Your task to perform on an android device: Add "acer predator" to the cart on costco, then select checkout. Image 0: 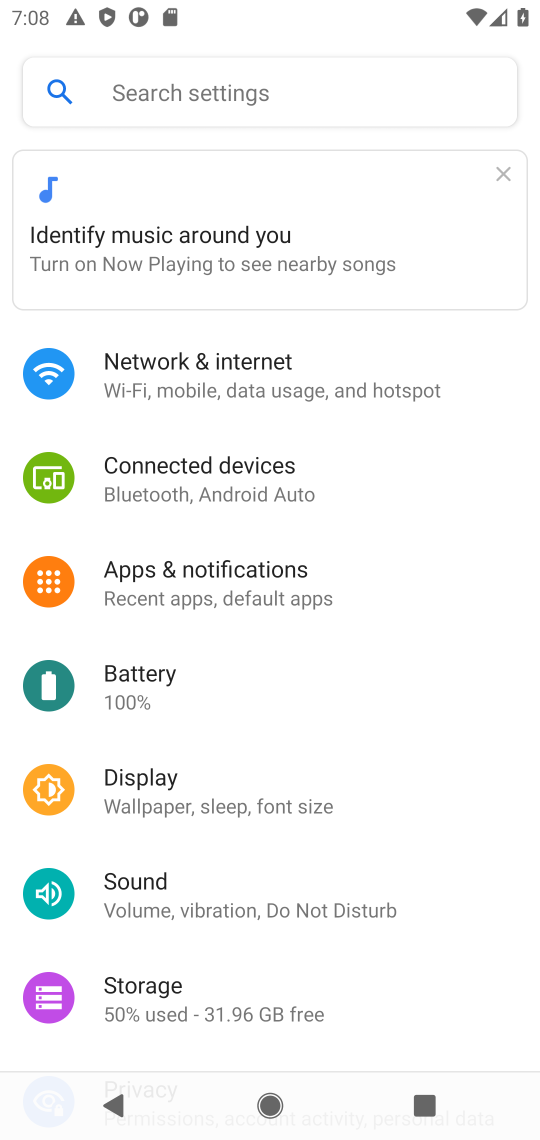
Step 0: press home button
Your task to perform on an android device: Add "acer predator" to the cart on costco, then select checkout. Image 1: 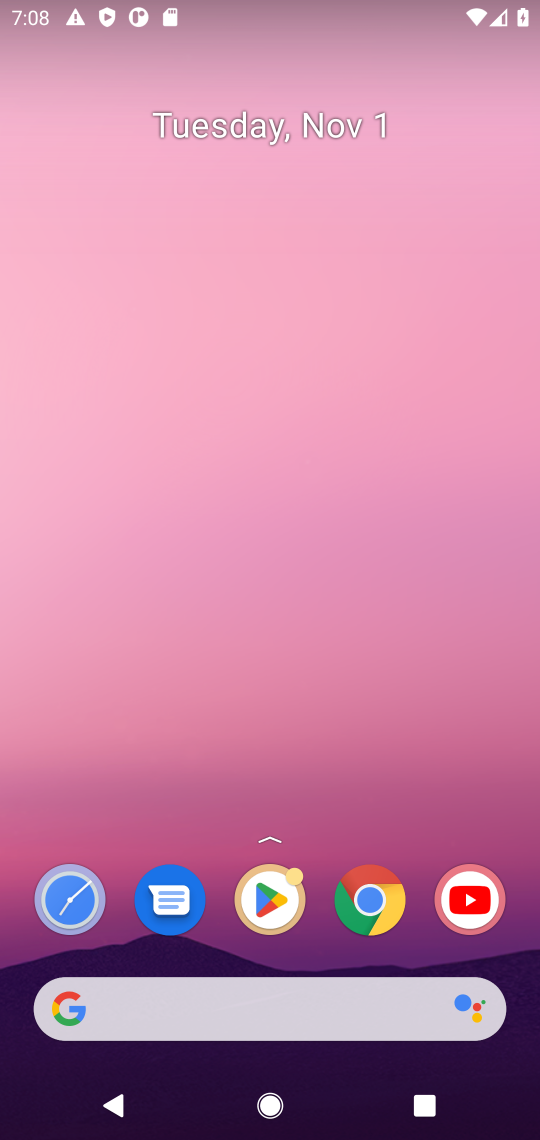
Step 1: drag from (192, 637) to (256, 8)
Your task to perform on an android device: Add "acer predator" to the cart on costco, then select checkout. Image 2: 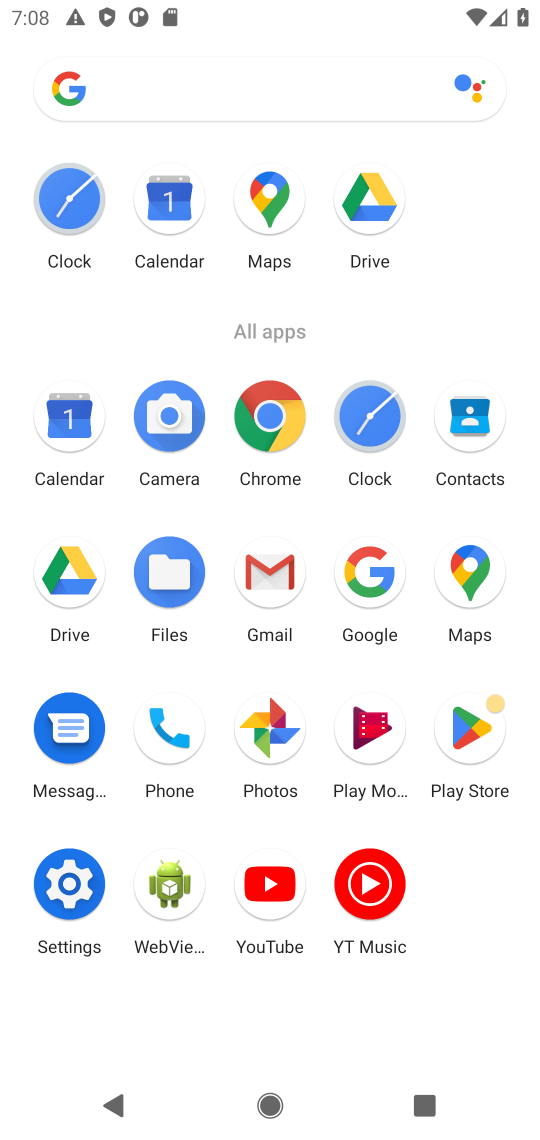
Step 2: click (267, 418)
Your task to perform on an android device: Add "acer predator" to the cart on costco, then select checkout. Image 3: 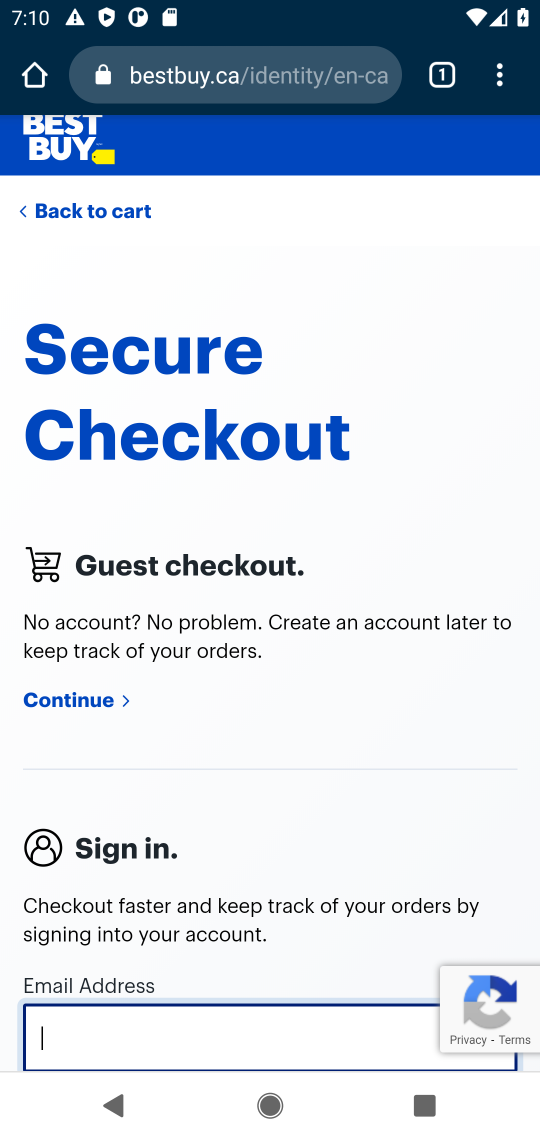
Step 3: click (332, 62)
Your task to perform on an android device: Add "acer predator" to the cart on costco, then select checkout. Image 4: 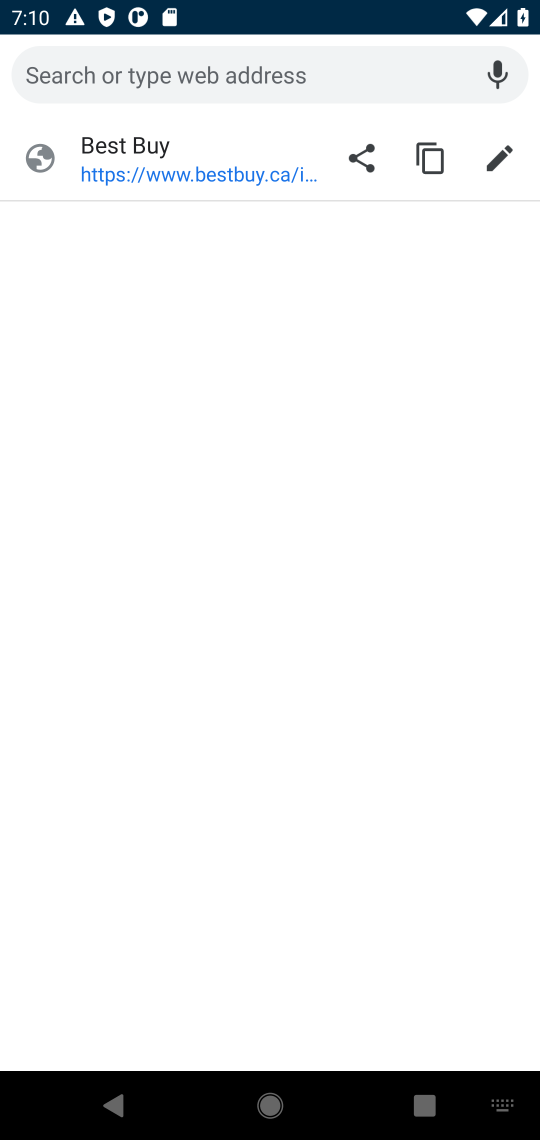
Step 4: type "costco.com"
Your task to perform on an android device: Add "acer predator" to the cart on costco, then select checkout. Image 5: 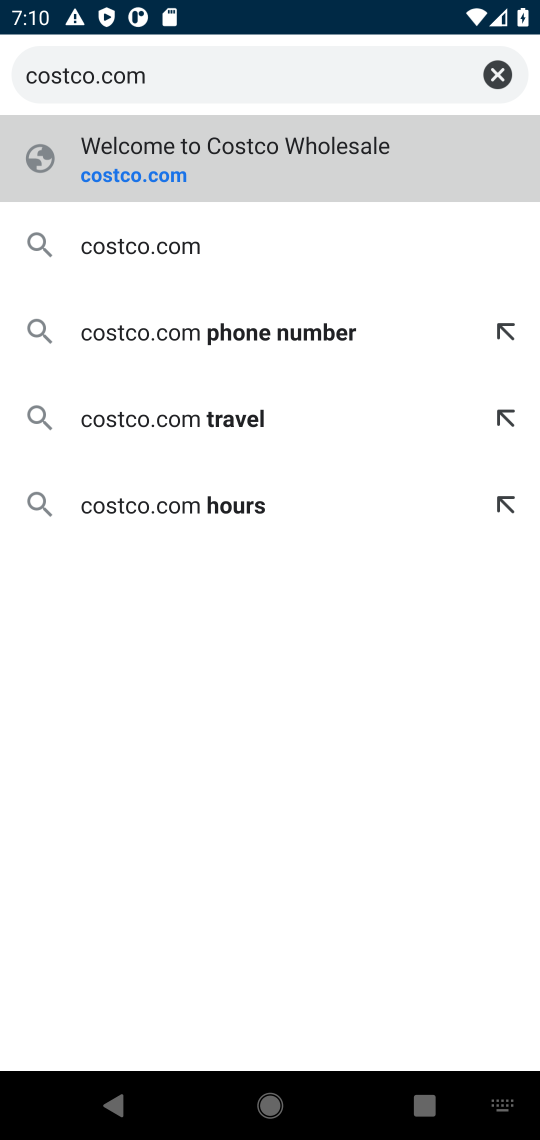
Step 5: press enter
Your task to perform on an android device: Add "acer predator" to the cart on costco, then select checkout. Image 6: 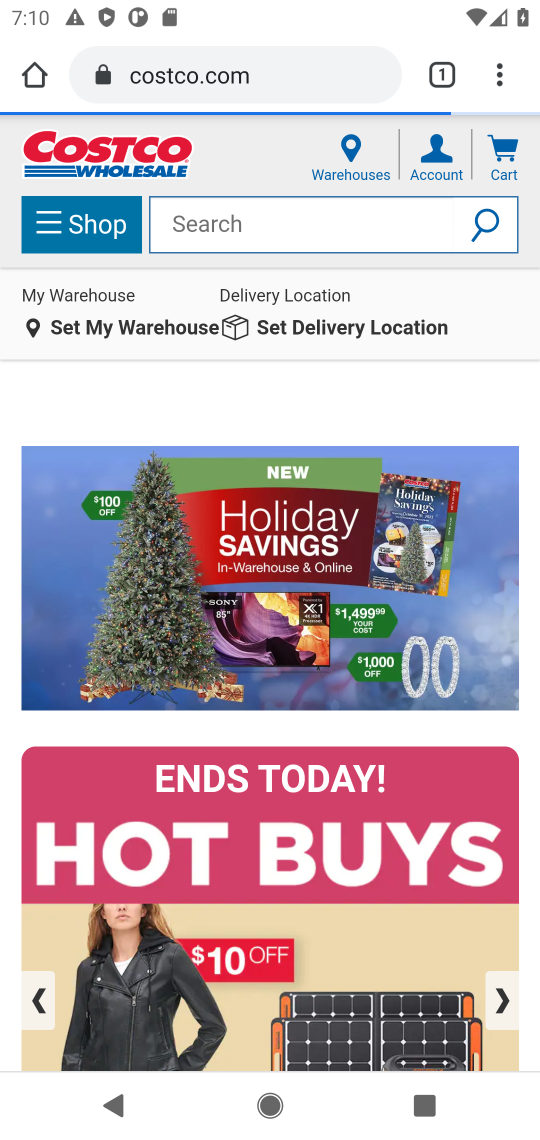
Step 6: click (308, 226)
Your task to perform on an android device: Add "acer predator" to the cart on costco, then select checkout. Image 7: 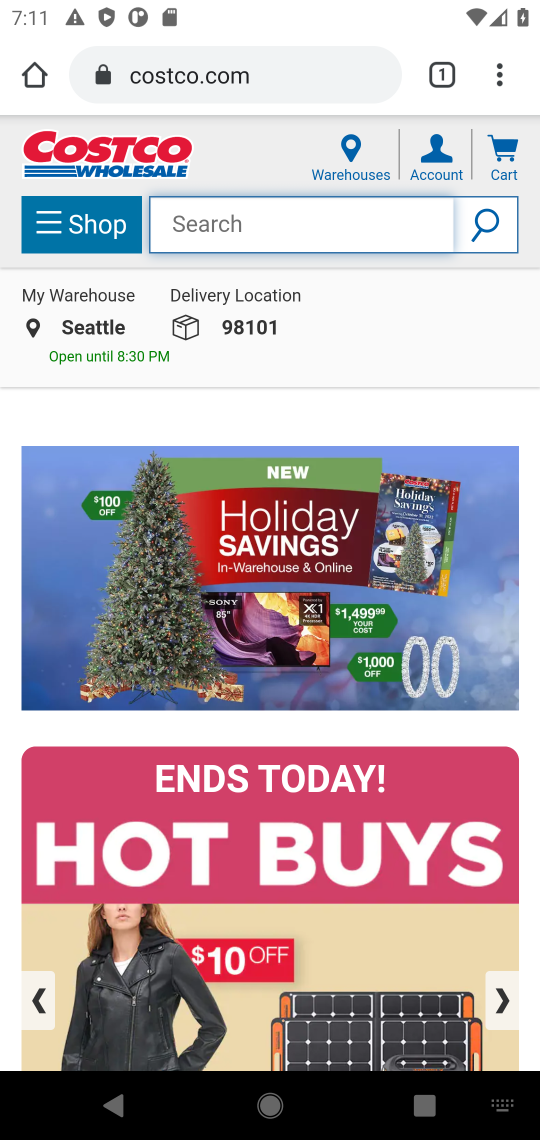
Step 7: type "acer predator"
Your task to perform on an android device: Add "acer predator" to the cart on costco, then select checkout. Image 8: 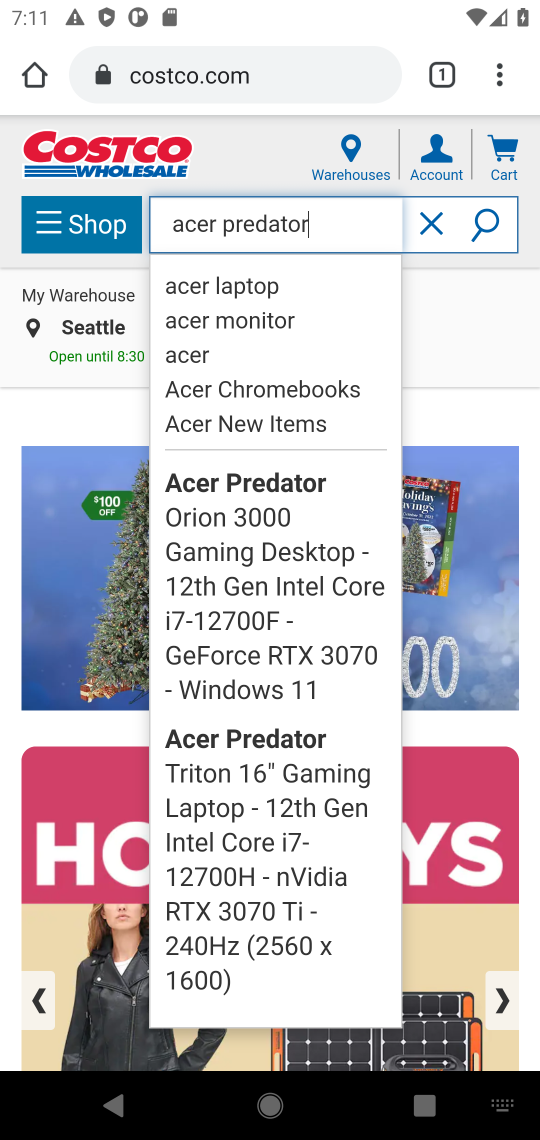
Step 8: press enter
Your task to perform on an android device: Add "acer predator" to the cart on costco, then select checkout. Image 9: 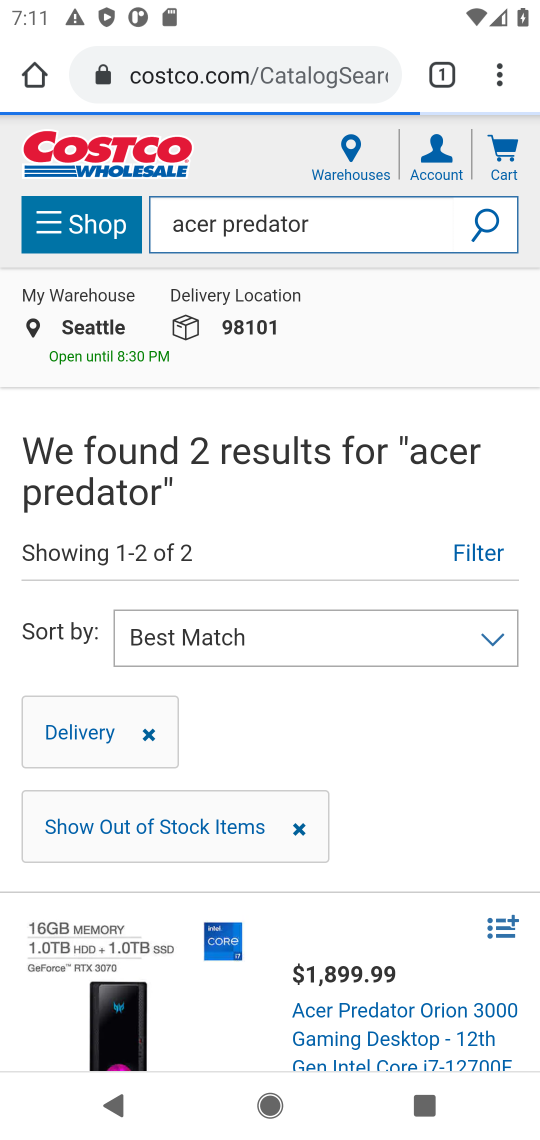
Step 9: drag from (310, 857) to (381, 251)
Your task to perform on an android device: Add "acer predator" to the cart on costco, then select checkout. Image 10: 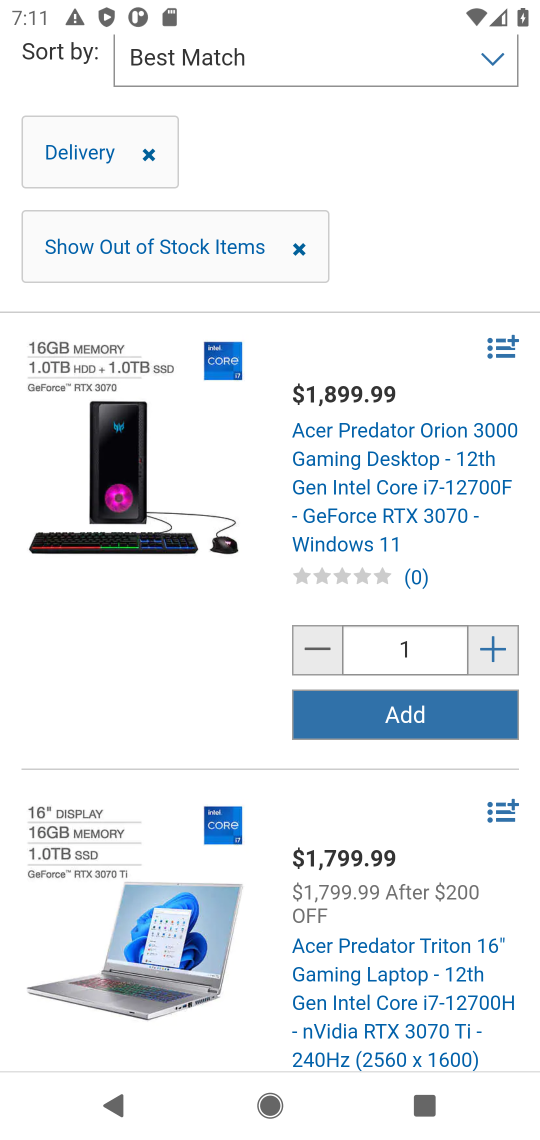
Step 10: click (425, 719)
Your task to perform on an android device: Add "acer predator" to the cart on costco, then select checkout. Image 11: 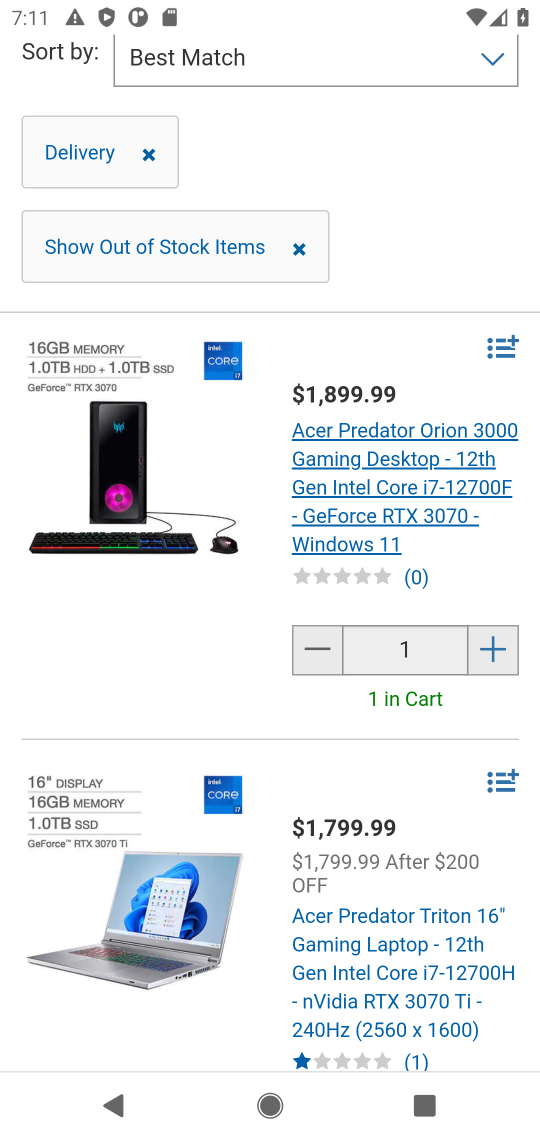
Step 11: drag from (376, 485) to (253, 604)
Your task to perform on an android device: Add "acer predator" to the cart on costco, then select checkout. Image 12: 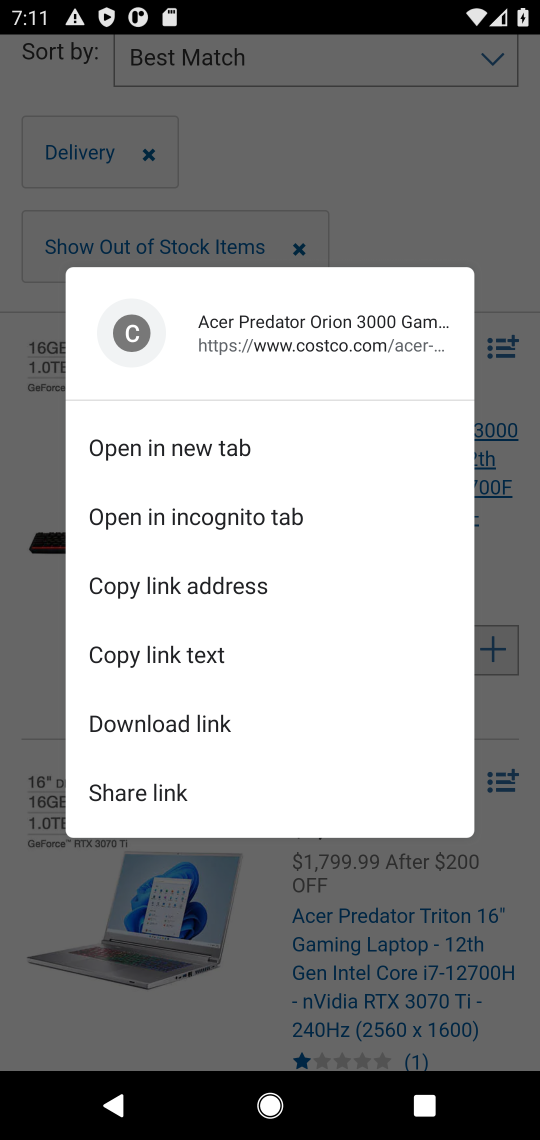
Step 12: click (270, 197)
Your task to perform on an android device: Add "acer predator" to the cart on costco, then select checkout. Image 13: 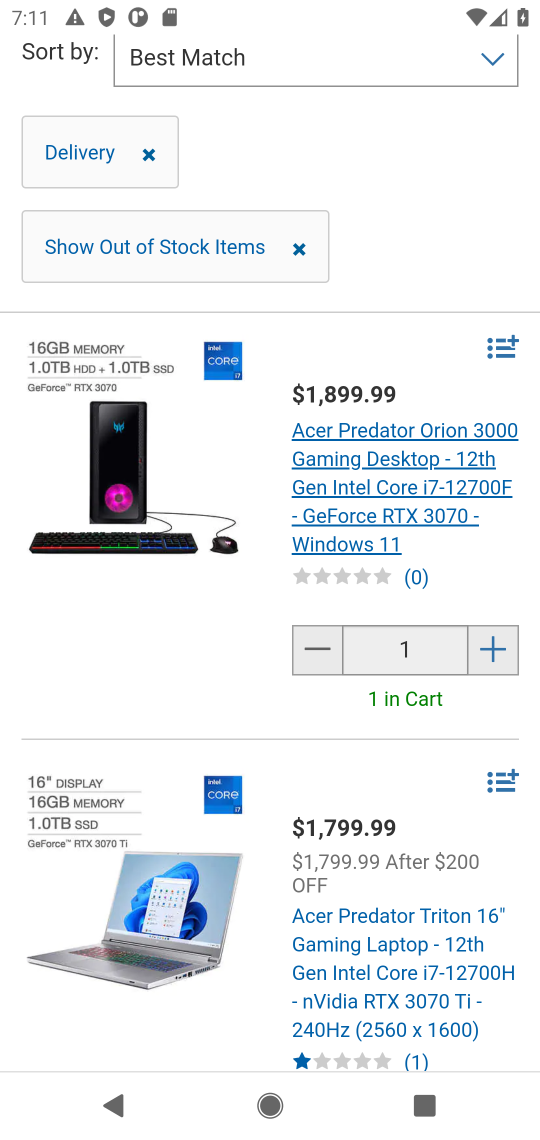
Step 13: drag from (304, 167) to (257, 981)
Your task to perform on an android device: Add "acer predator" to the cart on costco, then select checkout. Image 14: 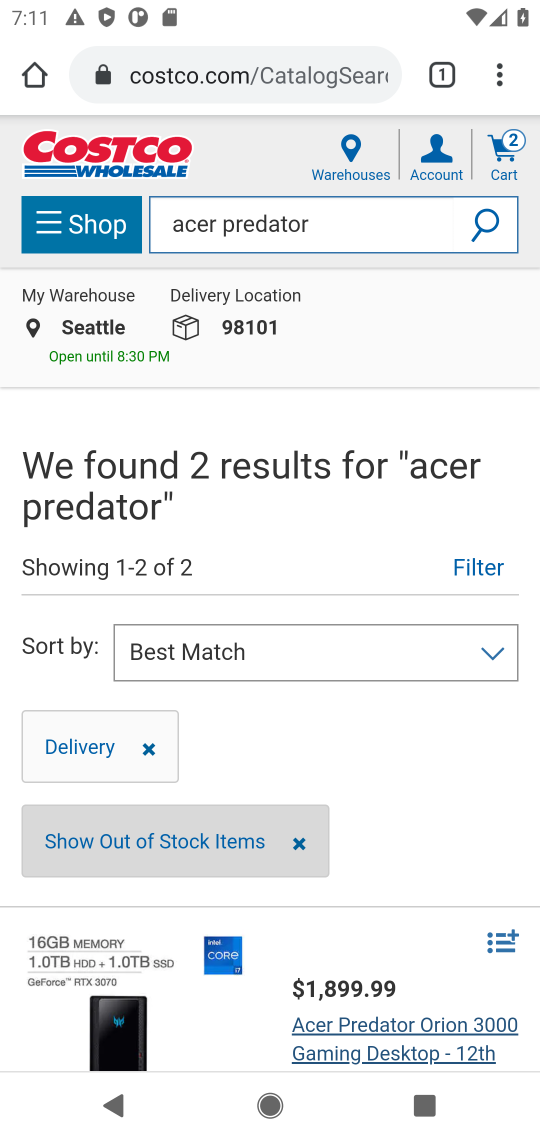
Step 14: click (499, 156)
Your task to perform on an android device: Add "acer predator" to the cart on costco, then select checkout. Image 15: 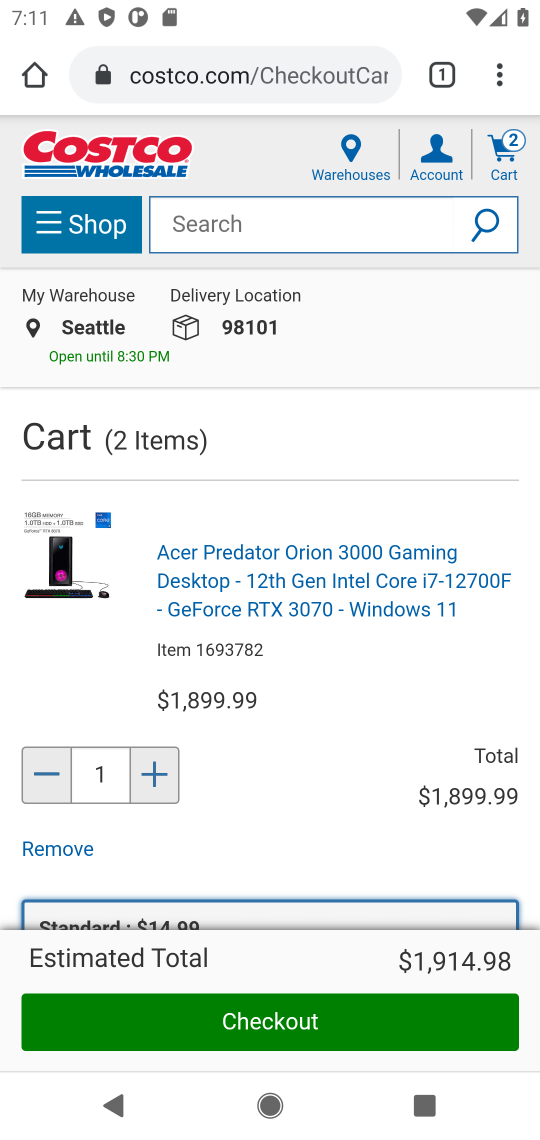
Step 15: click (299, 1026)
Your task to perform on an android device: Add "acer predator" to the cart on costco, then select checkout. Image 16: 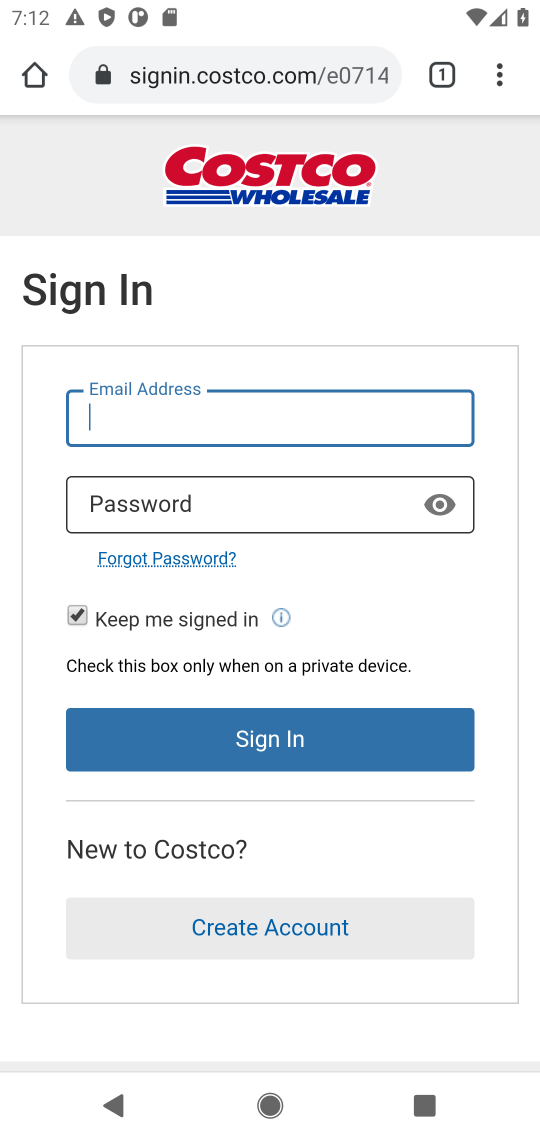
Step 16: task complete